Your task to perform on an android device: What's the weather going to be this weekend? Image 0: 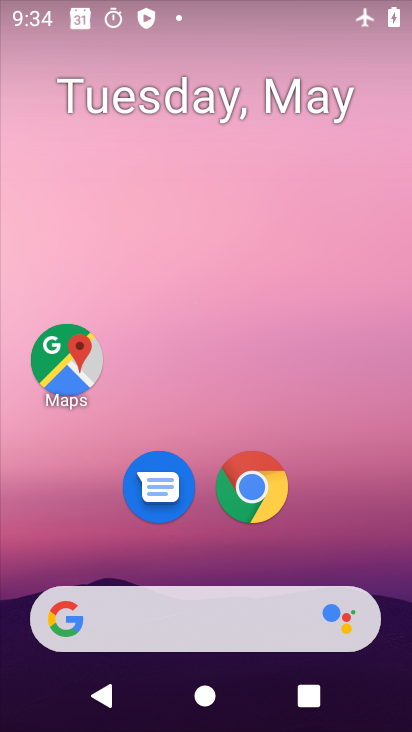
Step 0: click (254, 63)
Your task to perform on an android device: What's the weather going to be this weekend? Image 1: 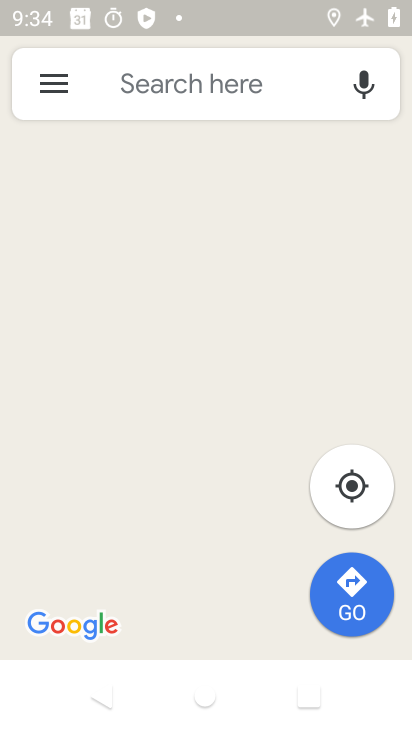
Step 1: press home button
Your task to perform on an android device: What's the weather going to be this weekend? Image 2: 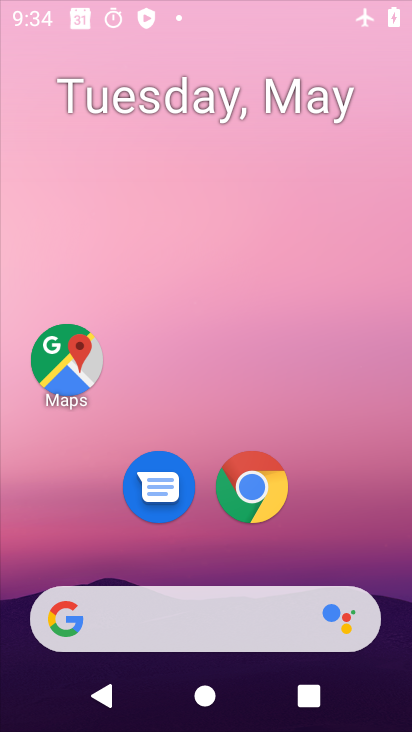
Step 2: drag from (185, 597) to (299, 100)
Your task to perform on an android device: What's the weather going to be this weekend? Image 3: 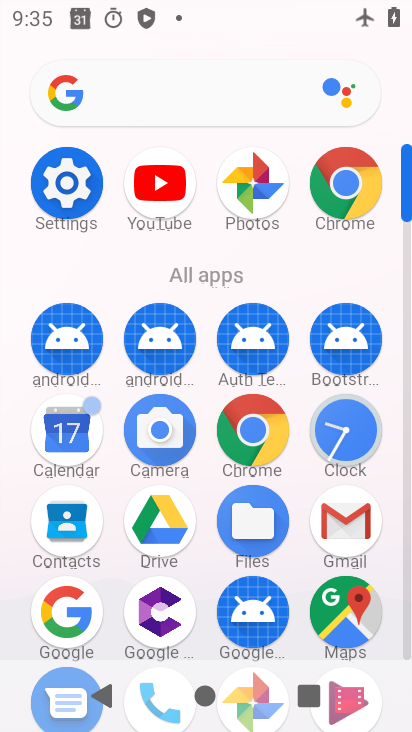
Step 3: click (139, 107)
Your task to perform on an android device: What's the weather going to be this weekend? Image 4: 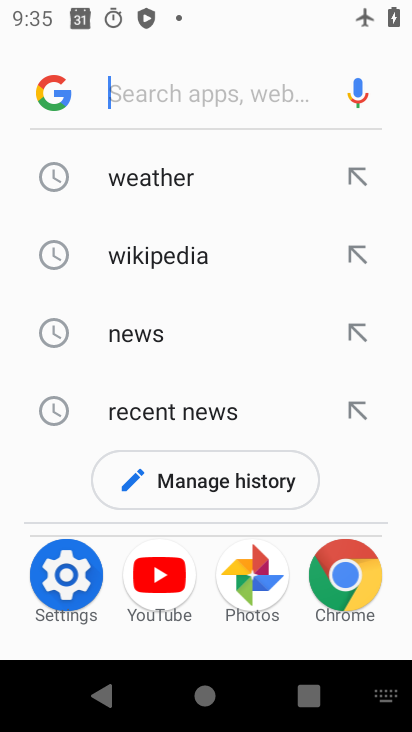
Step 4: type "weather going to be this weekend"
Your task to perform on an android device: What's the weather going to be this weekend? Image 5: 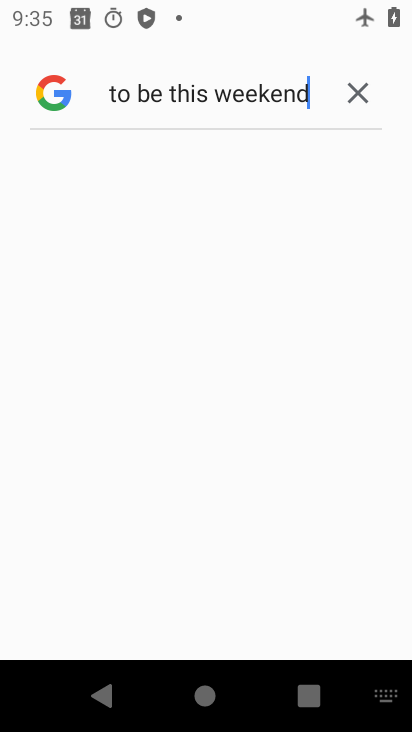
Step 5: task complete